Your task to perform on an android device: refresh tabs in the chrome app Image 0: 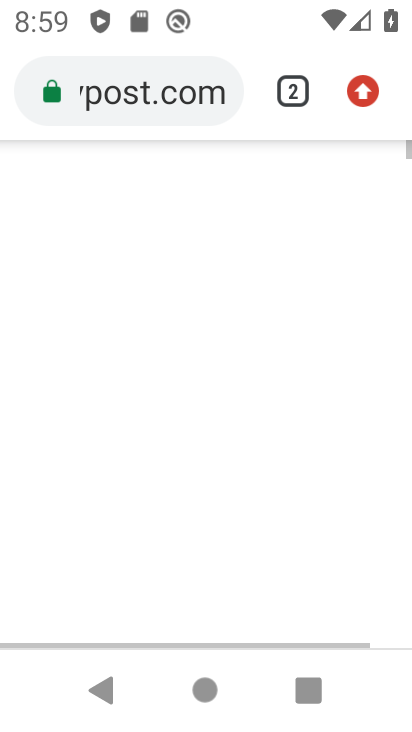
Step 0: press home button
Your task to perform on an android device: refresh tabs in the chrome app Image 1: 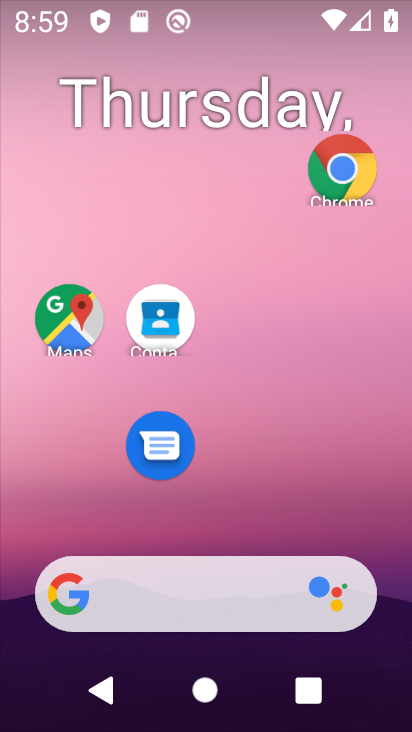
Step 1: drag from (275, 569) to (314, 264)
Your task to perform on an android device: refresh tabs in the chrome app Image 2: 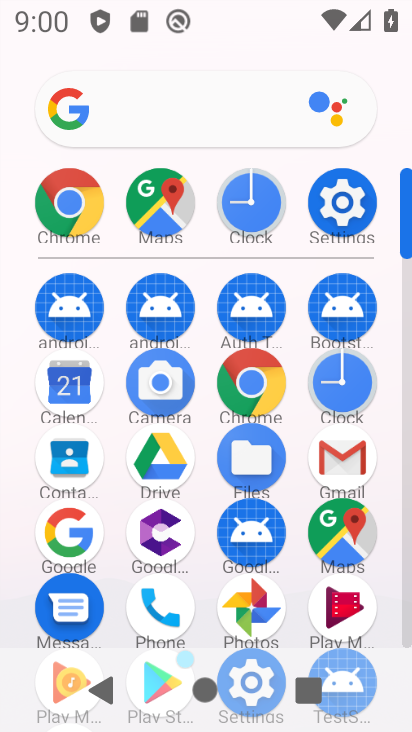
Step 2: click (74, 206)
Your task to perform on an android device: refresh tabs in the chrome app Image 3: 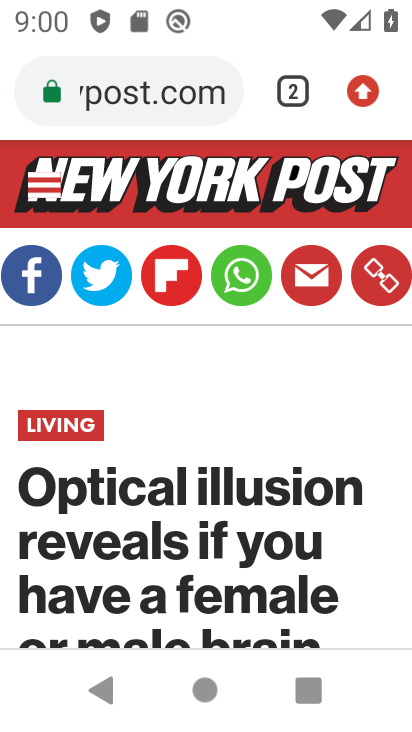
Step 3: click (296, 96)
Your task to perform on an android device: refresh tabs in the chrome app Image 4: 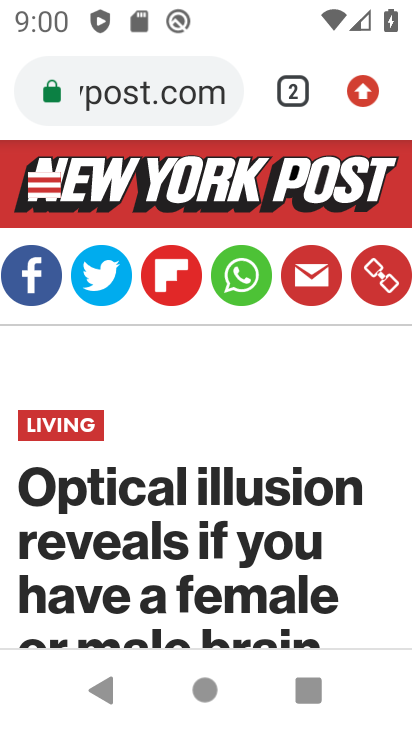
Step 4: click (298, 88)
Your task to perform on an android device: refresh tabs in the chrome app Image 5: 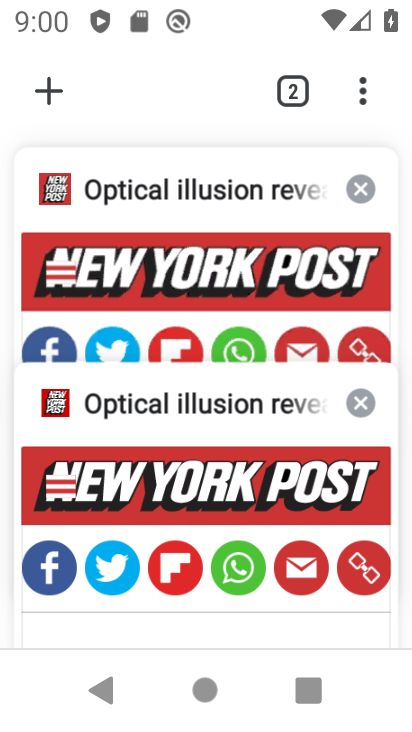
Step 5: click (51, 85)
Your task to perform on an android device: refresh tabs in the chrome app Image 6: 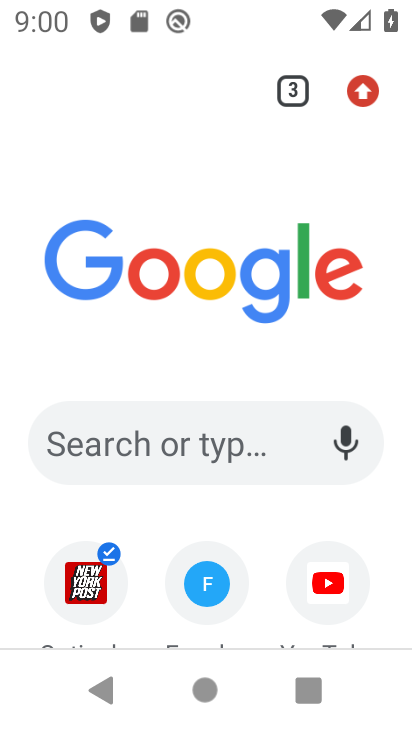
Step 6: click (368, 90)
Your task to perform on an android device: refresh tabs in the chrome app Image 7: 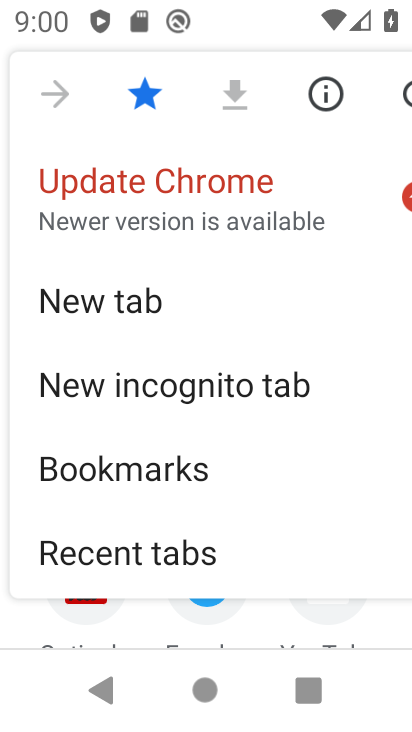
Step 7: click (403, 97)
Your task to perform on an android device: refresh tabs in the chrome app Image 8: 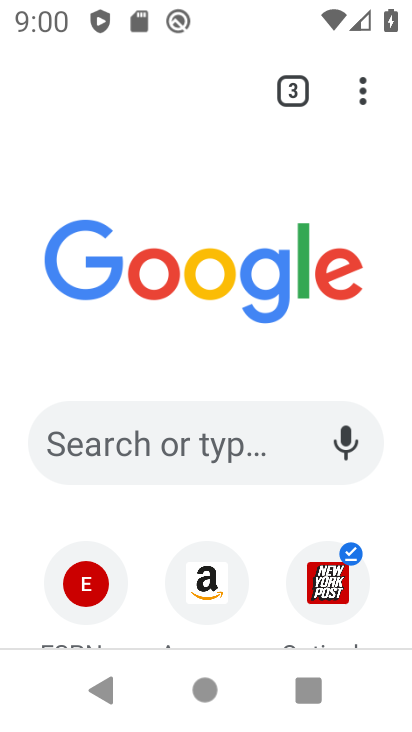
Step 8: task complete